Your task to perform on an android device: see tabs open on other devices in the chrome app Image 0: 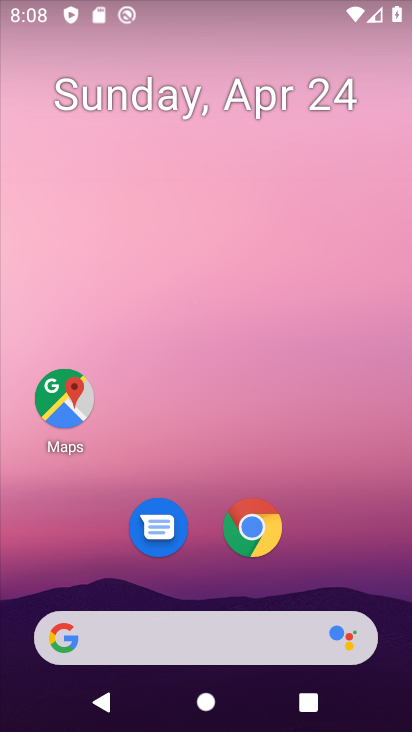
Step 0: click (257, 524)
Your task to perform on an android device: see tabs open on other devices in the chrome app Image 1: 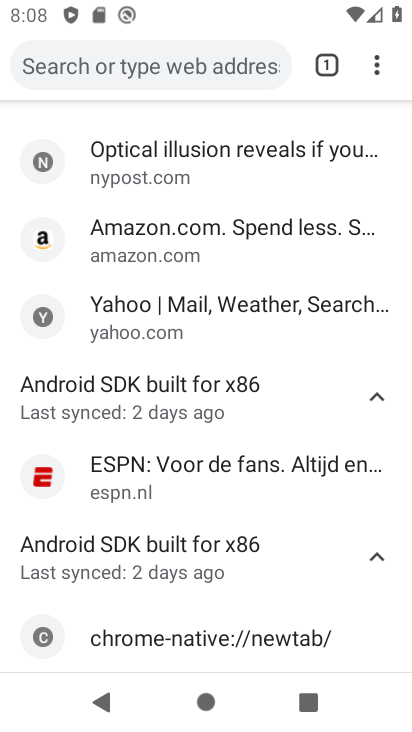
Step 1: task complete